Your task to perform on an android device: toggle pop-ups in chrome Image 0: 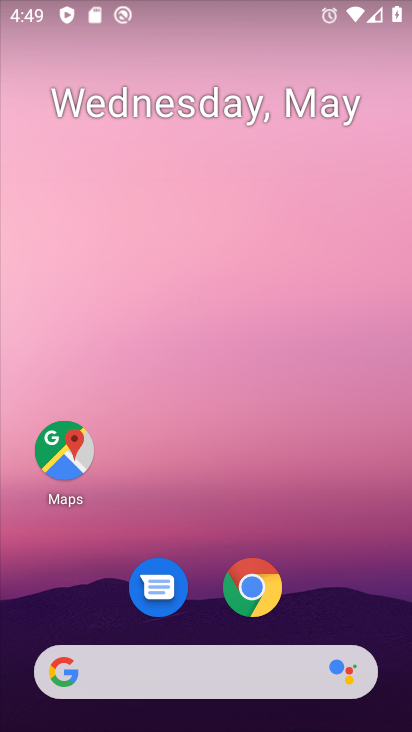
Step 0: drag from (349, 598) to (196, 43)
Your task to perform on an android device: toggle pop-ups in chrome Image 1: 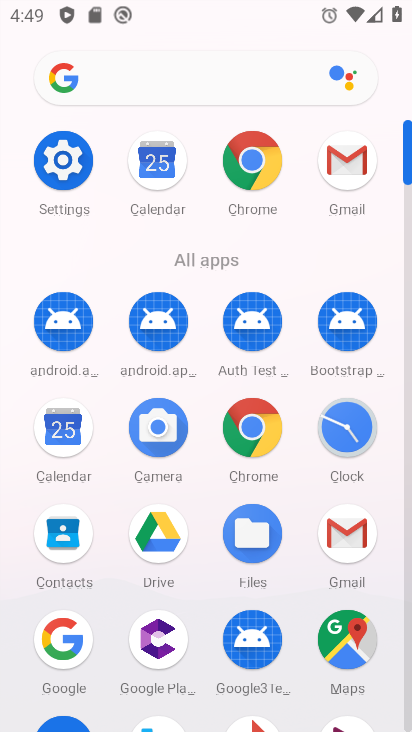
Step 1: click (256, 174)
Your task to perform on an android device: toggle pop-ups in chrome Image 2: 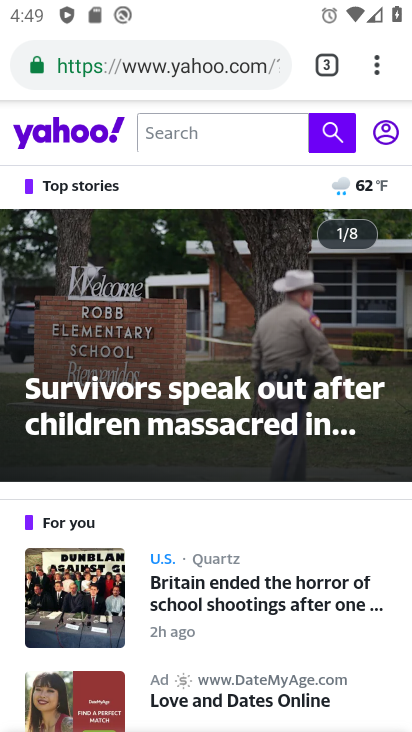
Step 2: drag from (375, 69) to (136, 649)
Your task to perform on an android device: toggle pop-ups in chrome Image 3: 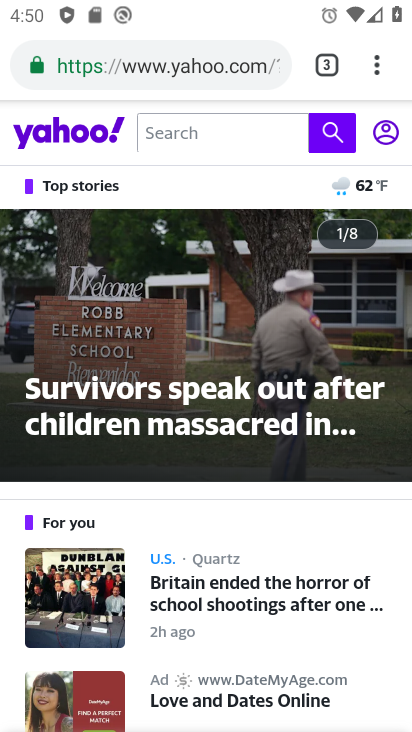
Step 3: click (137, 650)
Your task to perform on an android device: toggle pop-ups in chrome Image 4: 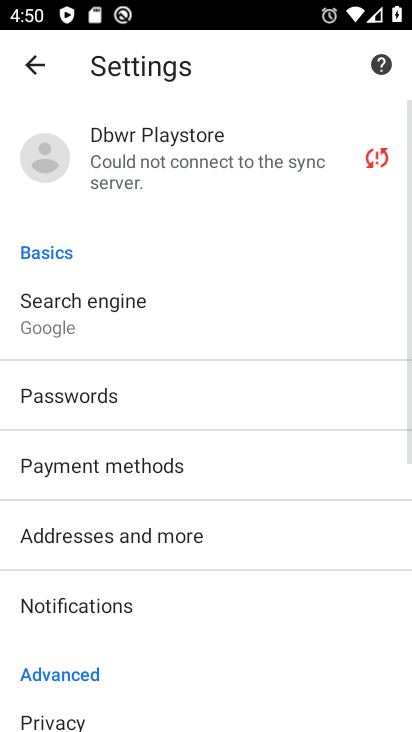
Step 4: drag from (104, 576) to (90, 239)
Your task to perform on an android device: toggle pop-ups in chrome Image 5: 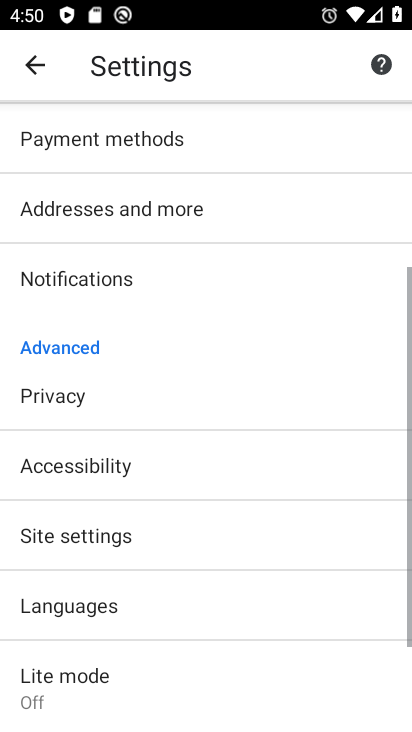
Step 5: drag from (177, 562) to (133, 156)
Your task to perform on an android device: toggle pop-ups in chrome Image 6: 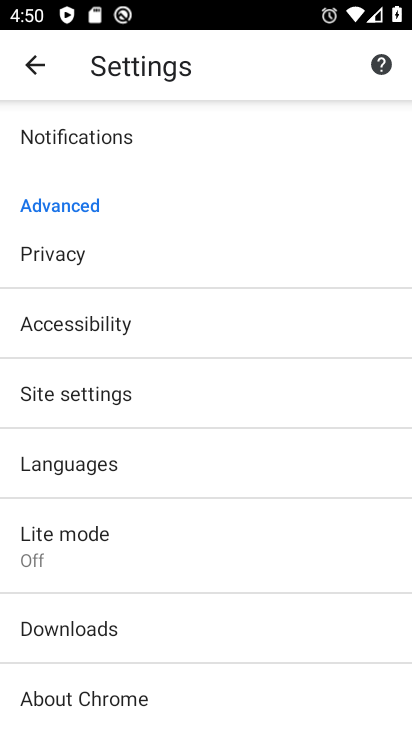
Step 6: click (66, 387)
Your task to perform on an android device: toggle pop-ups in chrome Image 7: 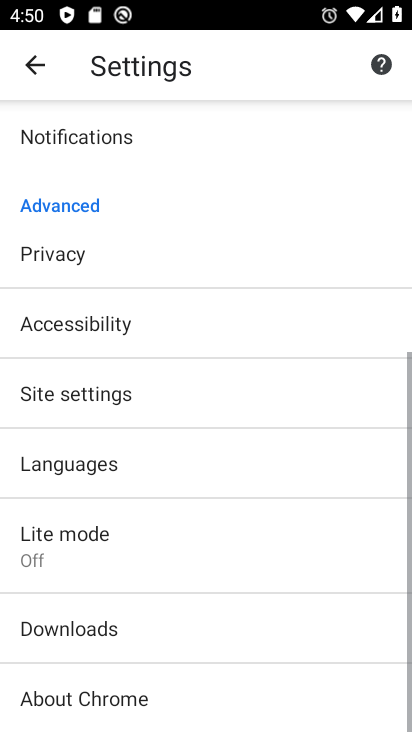
Step 7: click (66, 387)
Your task to perform on an android device: toggle pop-ups in chrome Image 8: 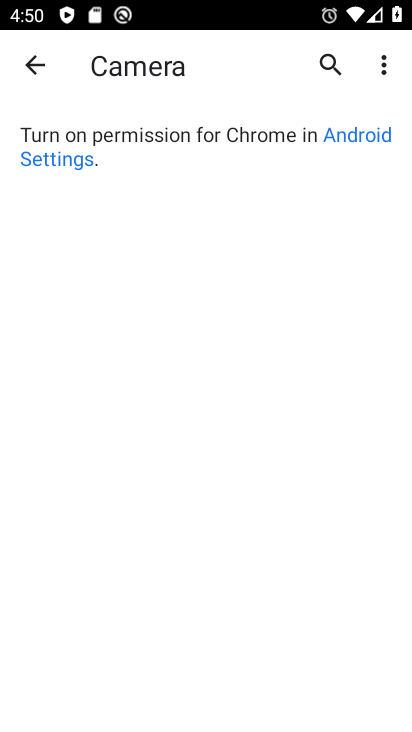
Step 8: click (38, 64)
Your task to perform on an android device: toggle pop-ups in chrome Image 9: 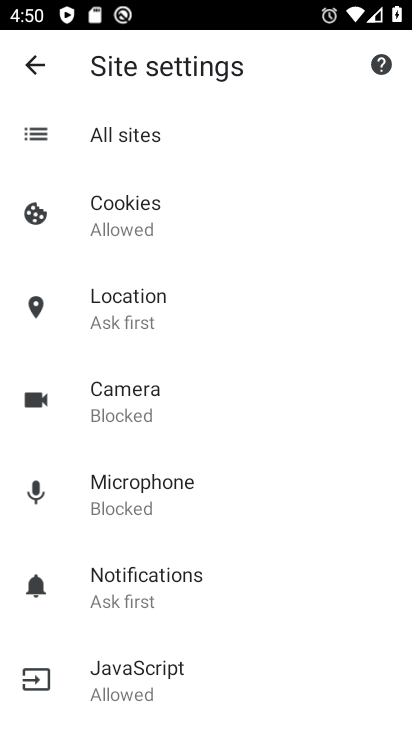
Step 9: drag from (162, 507) to (128, 76)
Your task to perform on an android device: toggle pop-ups in chrome Image 10: 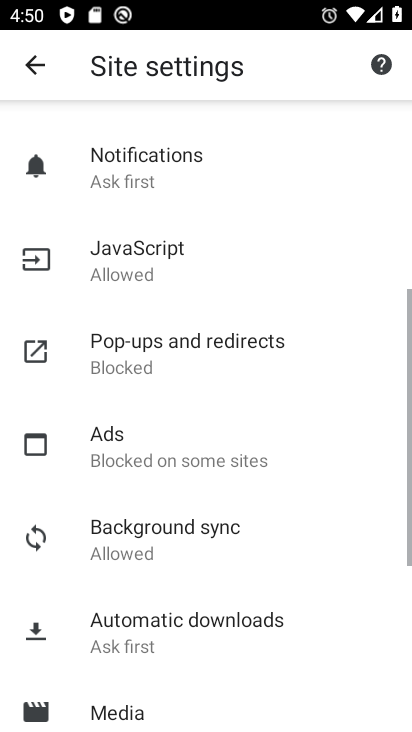
Step 10: click (122, 348)
Your task to perform on an android device: toggle pop-ups in chrome Image 11: 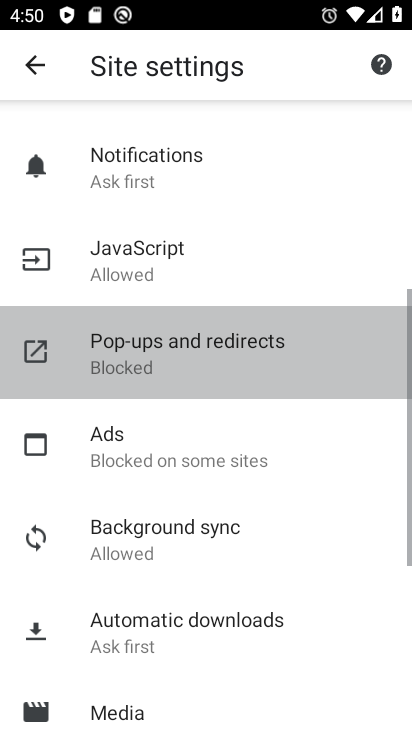
Step 11: click (122, 347)
Your task to perform on an android device: toggle pop-ups in chrome Image 12: 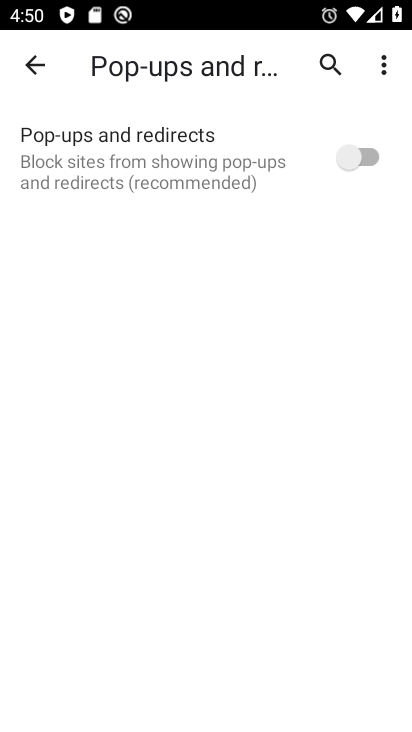
Step 12: click (353, 161)
Your task to perform on an android device: toggle pop-ups in chrome Image 13: 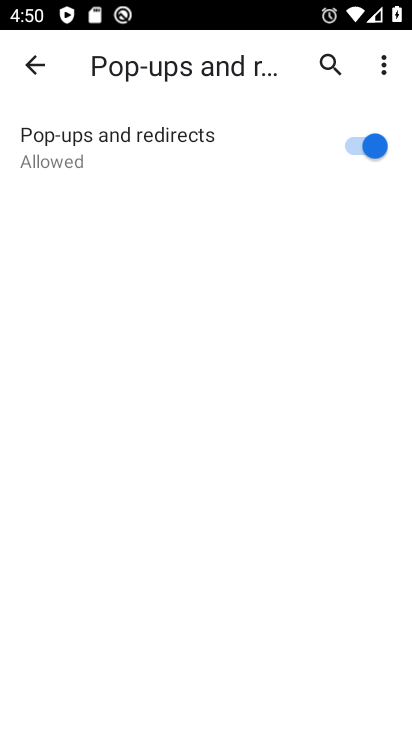
Step 13: task complete